Your task to perform on an android device: turn on priority inbox in the gmail app Image 0: 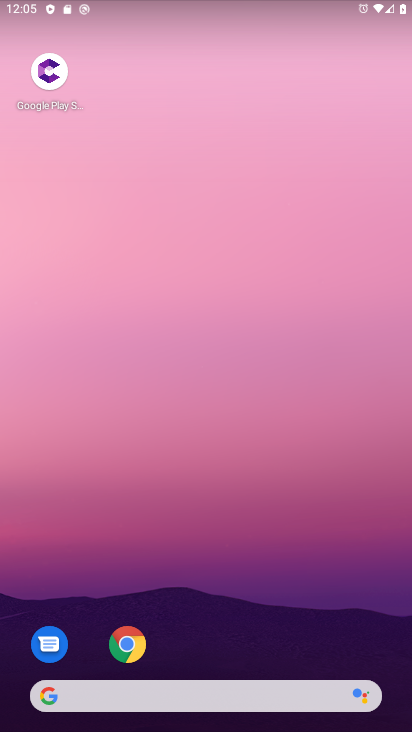
Step 0: drag from (196, 655) to (143, 160)
Your task to perform on an android device: turn on priority inbox in the gmail app Image 1: 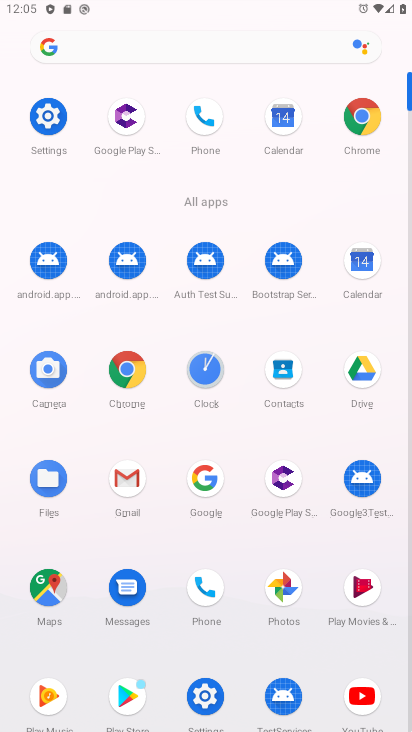
Step 1: click (130, 473)
Your task to perform on an android device: turn on priority inbox in the gmail app Image 2: 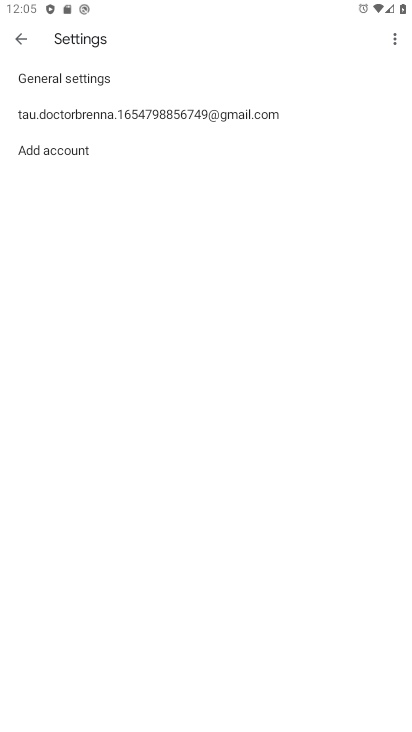
Step 2: click (48, 109)
Your task to perform on an android device: turn on priority inbox in the gmail app Image 3: 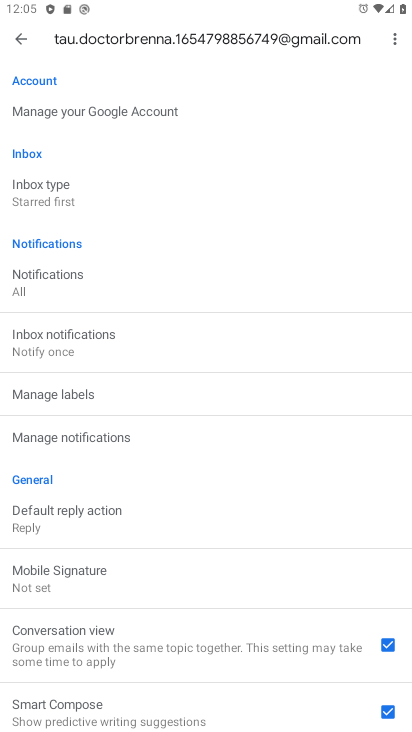
Step 3: click (50, 185)
Your task to perform on an android device: turn on priority inbox in the gmail app Image 4: 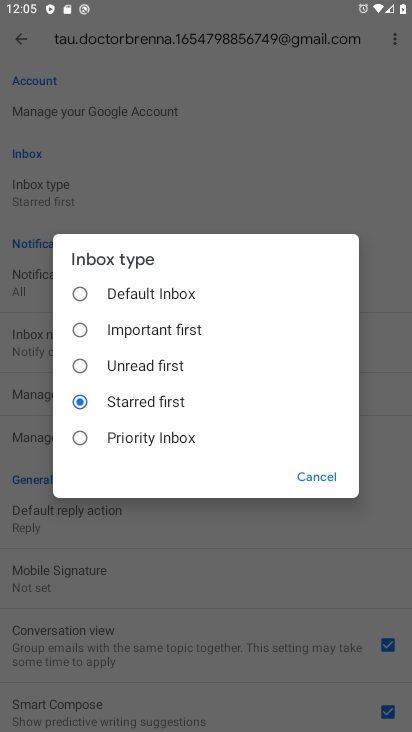
Step 4: click (88, 438)
Your task to perform on an android device: turn on priority inbox in the gmail app Image 5: 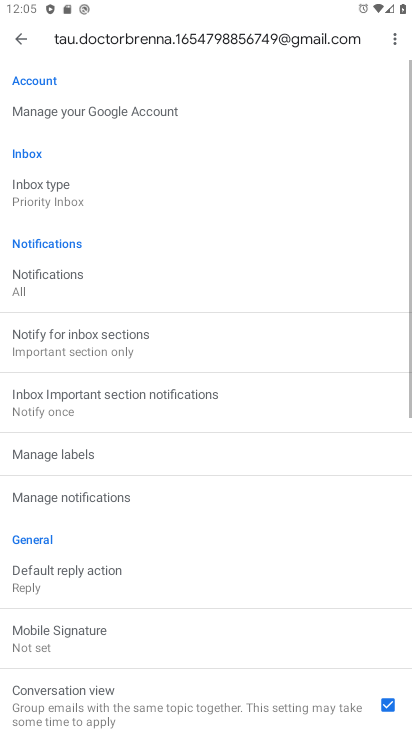
Step 5: task complete